Your task to perform on an android device: turn on priority inbox in the gmail app Image 0: 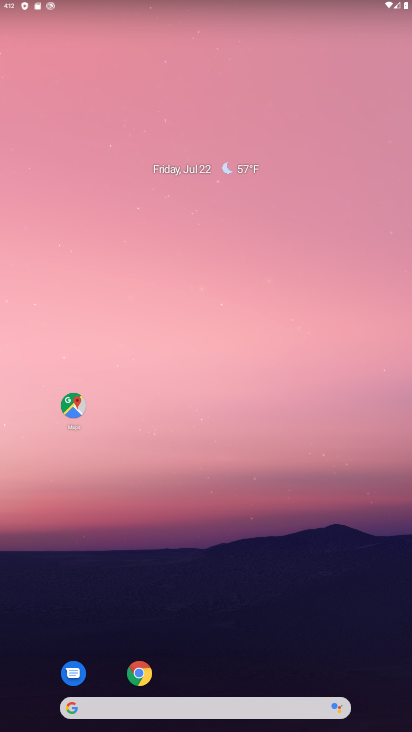
Step 0: drag from (286, 561) to (251, 262)
Your task to perform on an android device: turn on priority inbox in the gmail app Image 1: 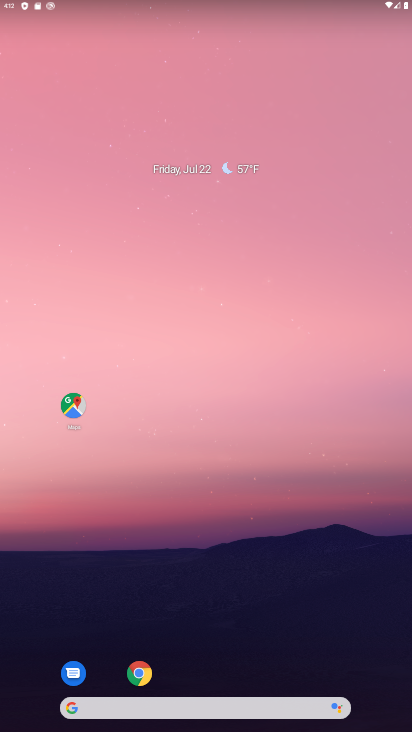
Step 1: drag from (288, 556) to (223, 39)
Your task to perform on an android device: turn on priority inbox in the gmail app Image 2: 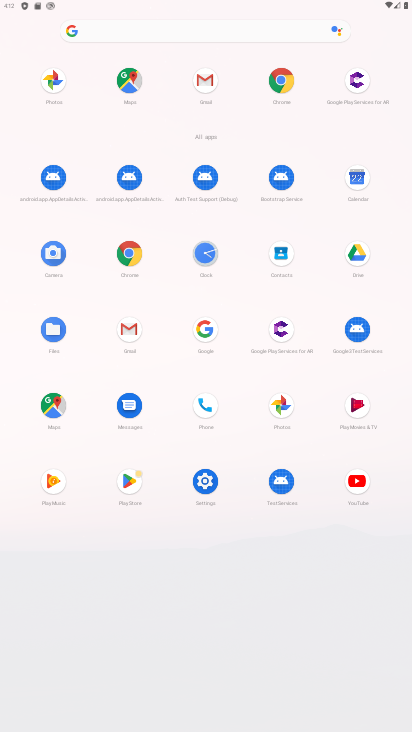
Step 2: click (131, 338)
Your task to perform on an android device: turn on priority inbox in the gmail app Image 3: 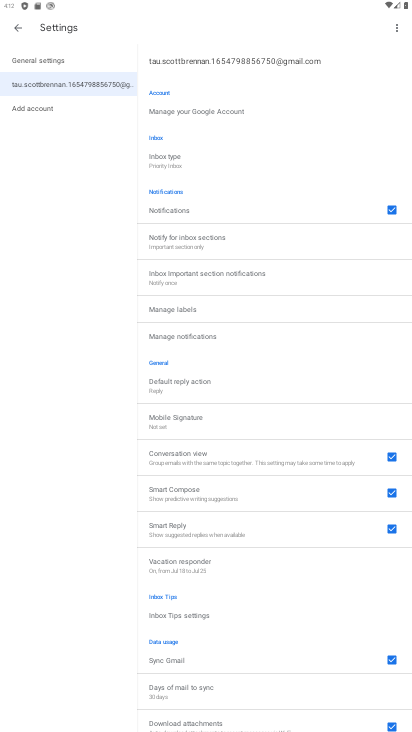
Step 3: task complete